Your task to perform on an android device: find snoozed emails in the gmail app Image 0: 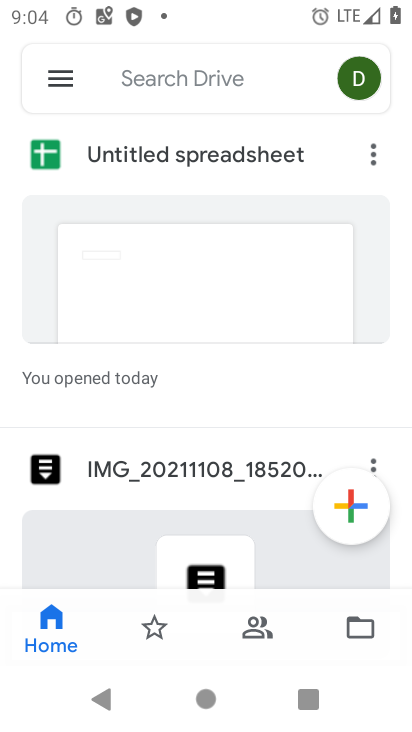
Step 0: press home button
Your task to perform on an android device: find snoozed emails in the gmail app Image 1: 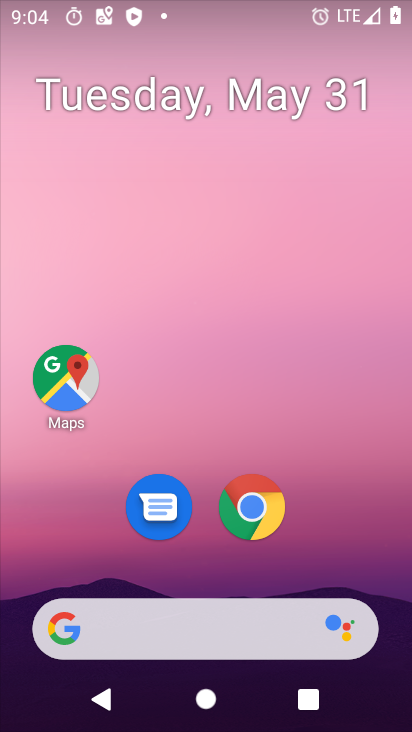
Step 1: drag from (34, 642) to (402, 122)
Your task to perform on an android device: find snoozed emails in the gmail app Image 2: 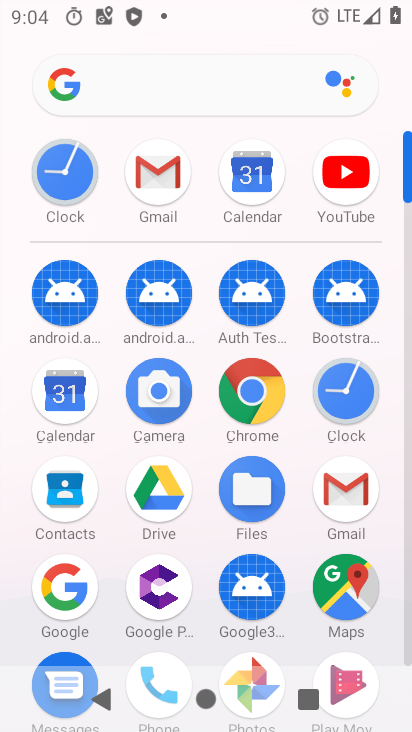
Step 2: click (169, 160)
Your task to perform on an android device: find snoozed emails in the gmail app Image 3: 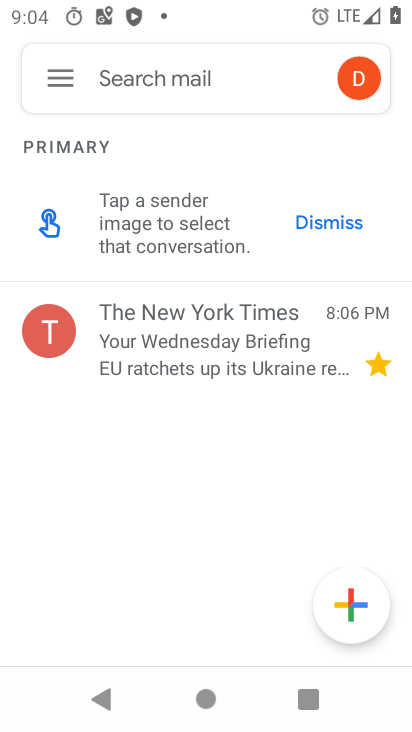
Step 3: click (49, 70)
Your task to perform on an android device: find snoozed emails in the gmail app Image 4: 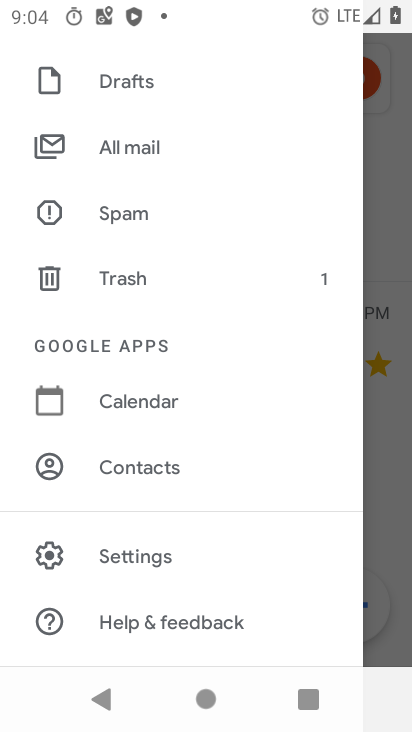
Step 4: drag from (135, 163) to (80, 586)
Your task to perform on an android device: find snoozed emails in the gmail app Image 5: 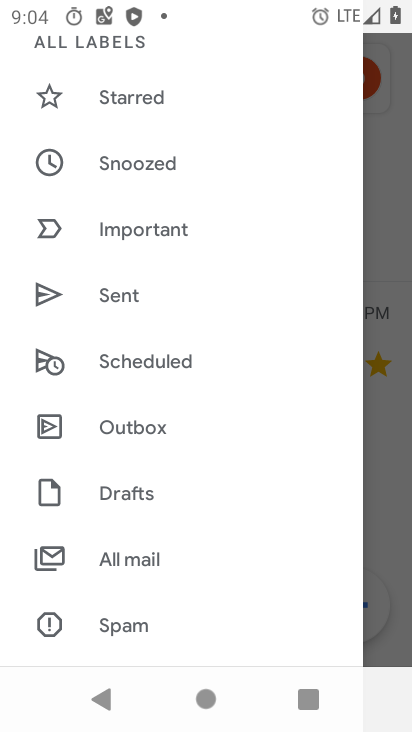
Step 5: click (113, 165)
Your task to perform on an android device: find snoozed emails in the gmail app Image 6: 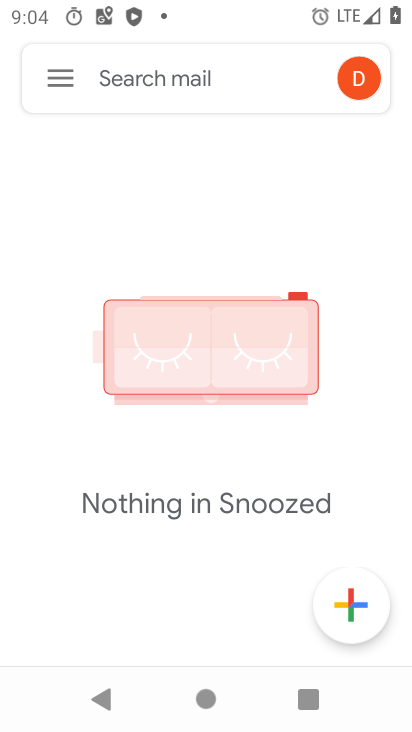
Step 6: task complete